Your task to perform on an android device: Open network settings Image 0: 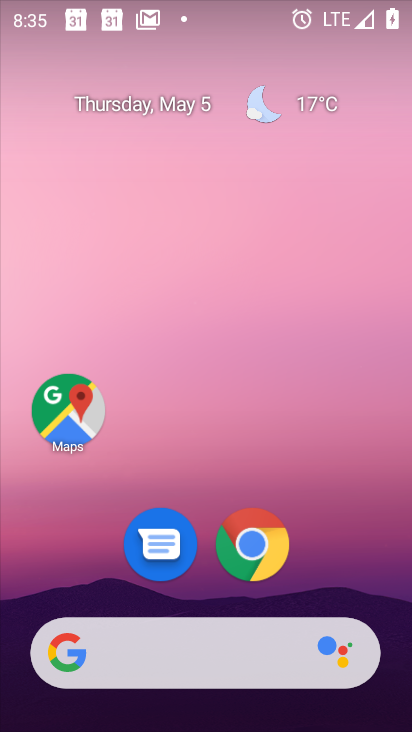
Step 0: drag from (355, 581) to (229, 37)
Your task to perform on an android device: Open network settings Image 1: 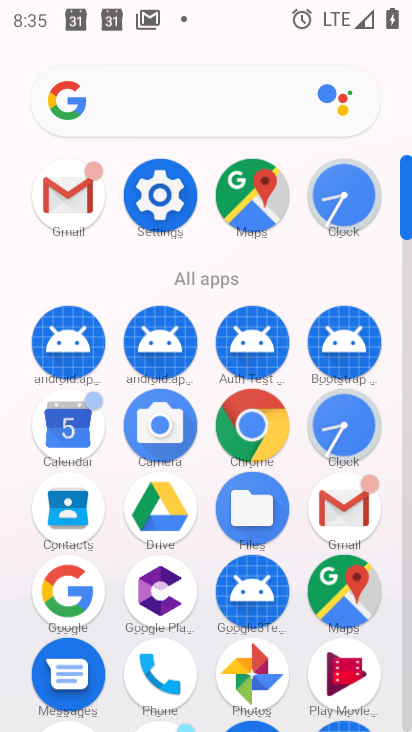
Step 1: click (156, 216)
Your task to perform on an android device: Open network settings Image 2: 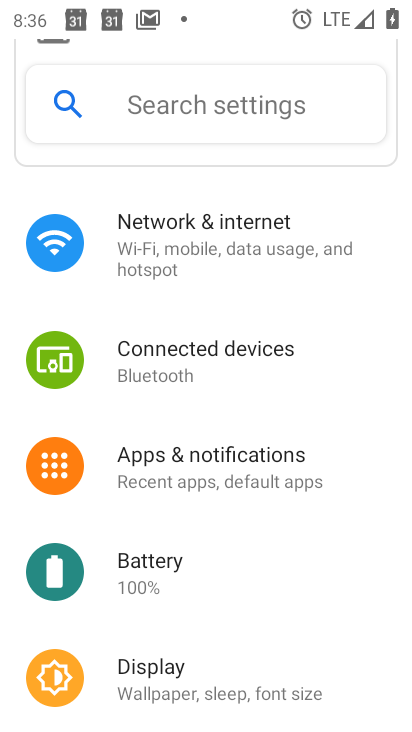
Step 2: click (143, 254)
Your task to perform on an android device: Open network settings Image 3: 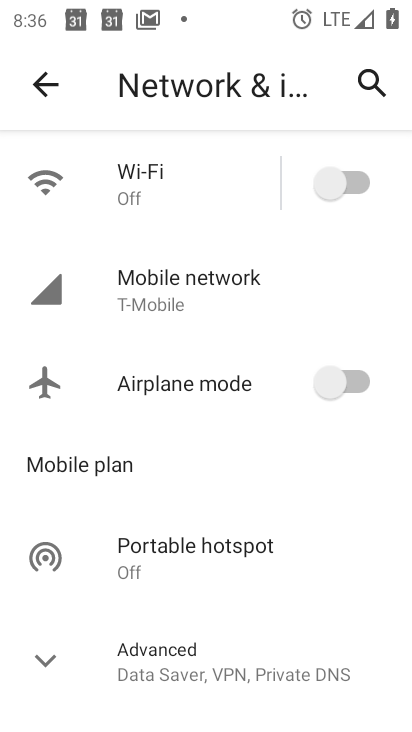
Step 3: task complete